Your task to perform on an android device: toggle sleep mode Image 0: 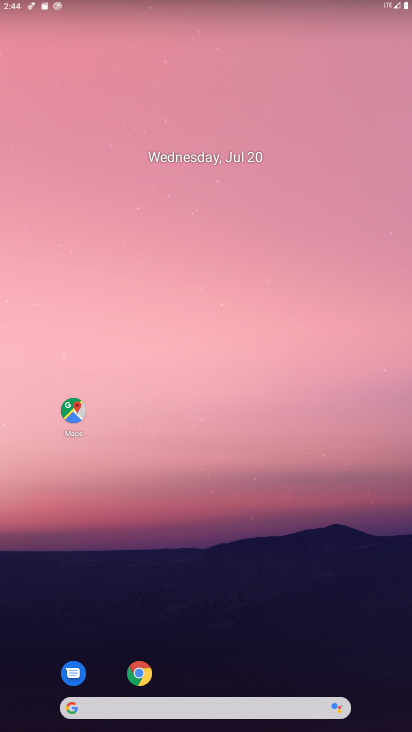
Step 0: drag from (195, 677) to (214, 0)
Your task to perform on an android device: toggle sleep mode Image 1: 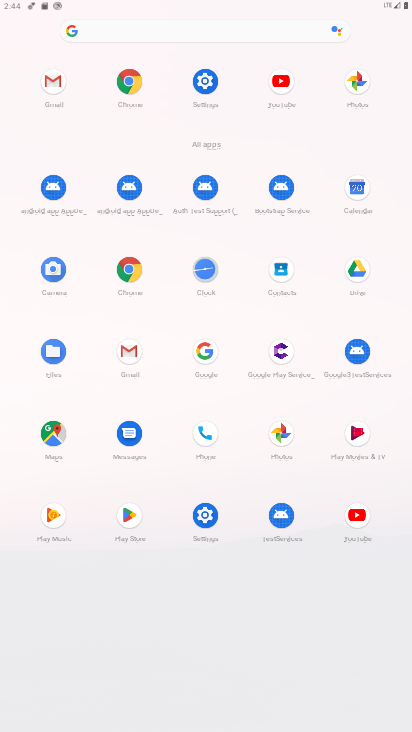
Step 1: click (201, 529)
Your task to perform on an android device: toggle sleep mode Image 2: 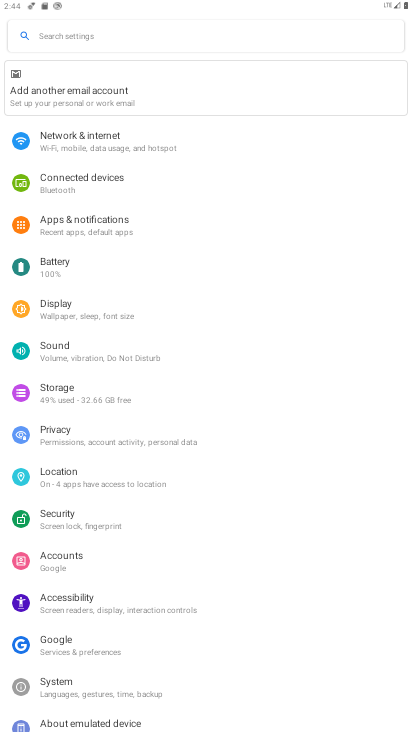
Step 2: click (169, 37)
Your task to perform on an android device: toggle sleep mode Image 3: 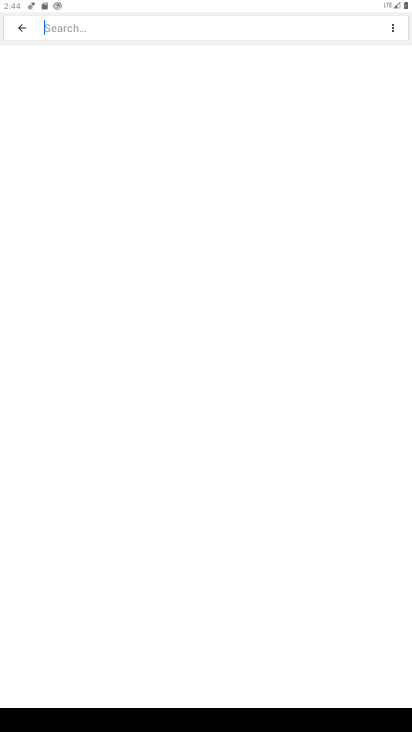
Step 3: type ""
Your task to perform on an android device: toggle sleep mode Image 4: 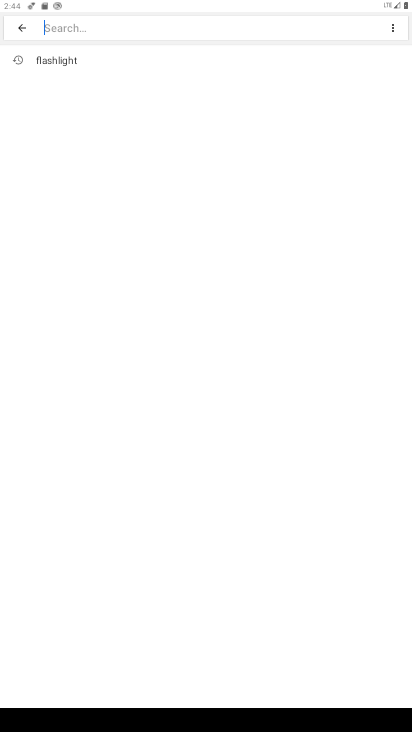
Step 4: type "sleep mode"
Your task to perform on an android device: toggle sleep mode Image 5: 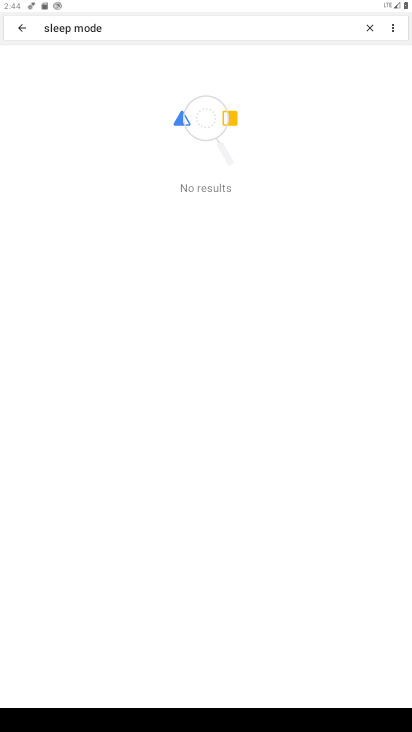
Step 5: task complete